Your task to perform on an android device: Open maps Image 0: 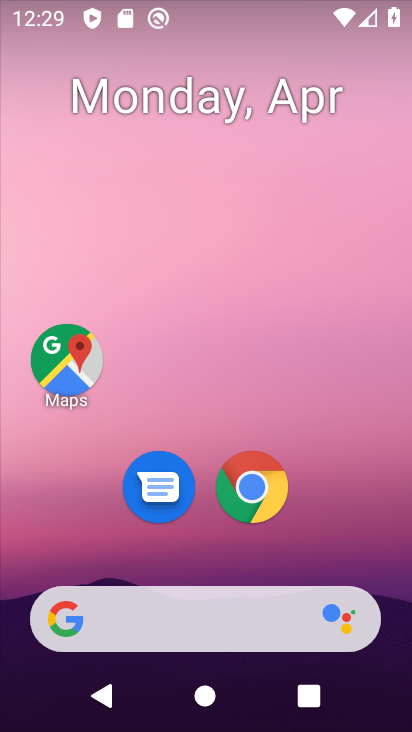
Step 0: drag from (398, 626) to (257, 48)
Your task to perform on an android device: Open maps Image 1: 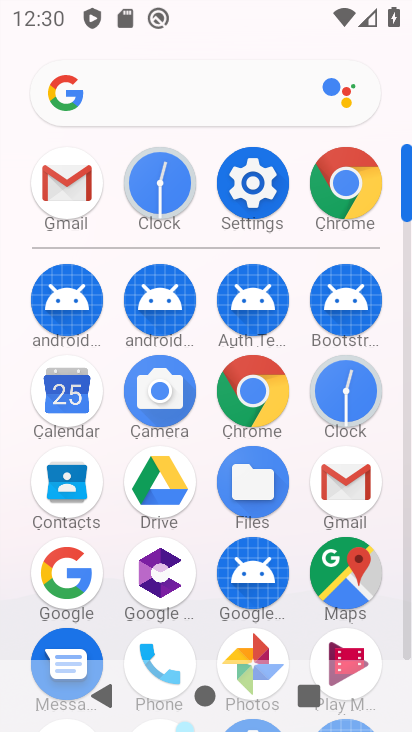
Step 1: click (359, 564)
Your task to perform on an android device: Open maps Image 2: 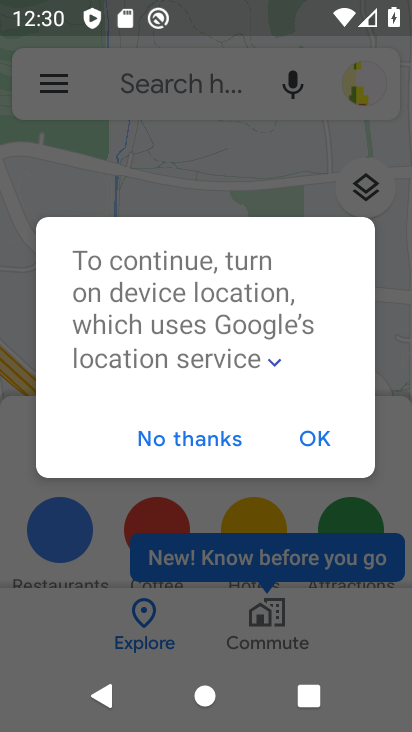
Step 2: task complete